Your task to perform on an android device: find photos in the google photos app Image 0: 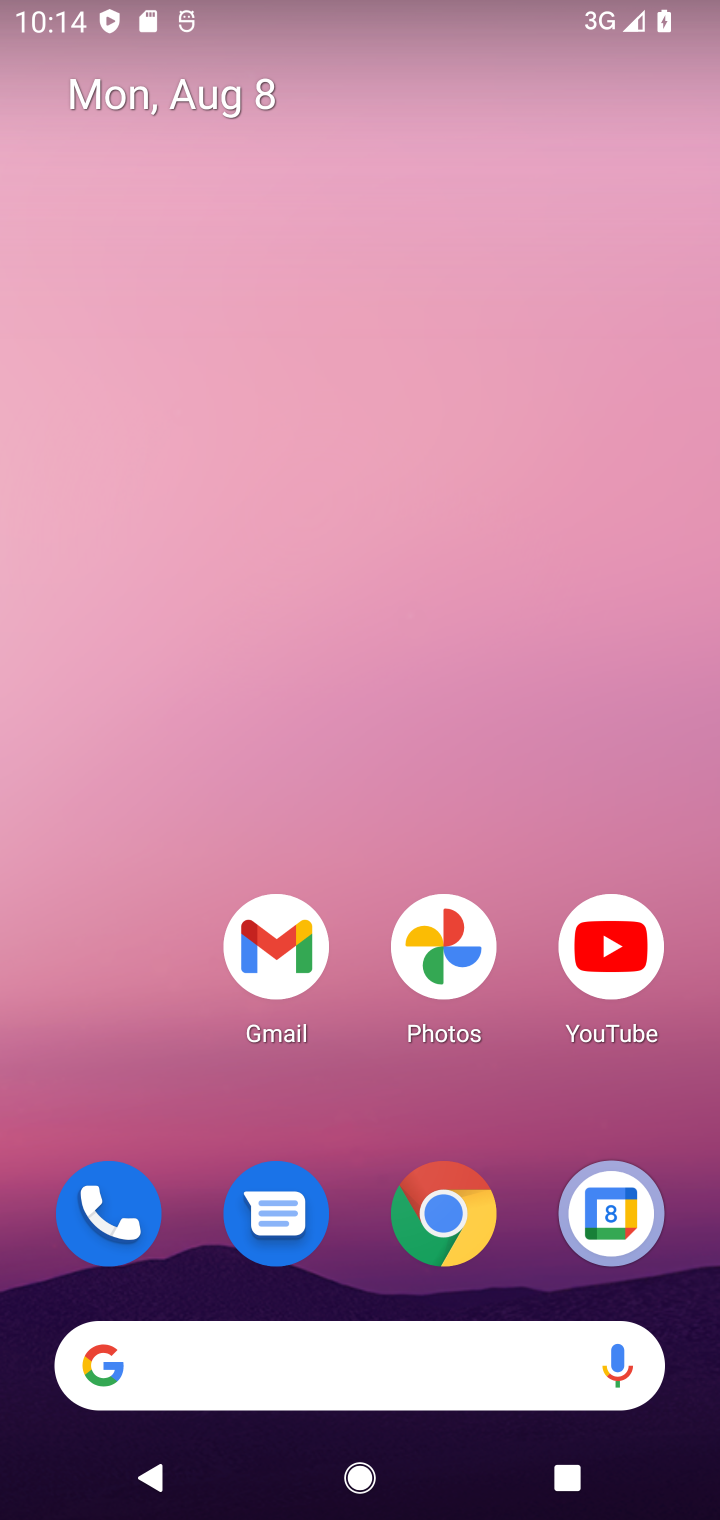
Step 0: drag from (131, 856) to (255, 436)
Your task to perform on an android device: find photos in the google photos app Image 1: 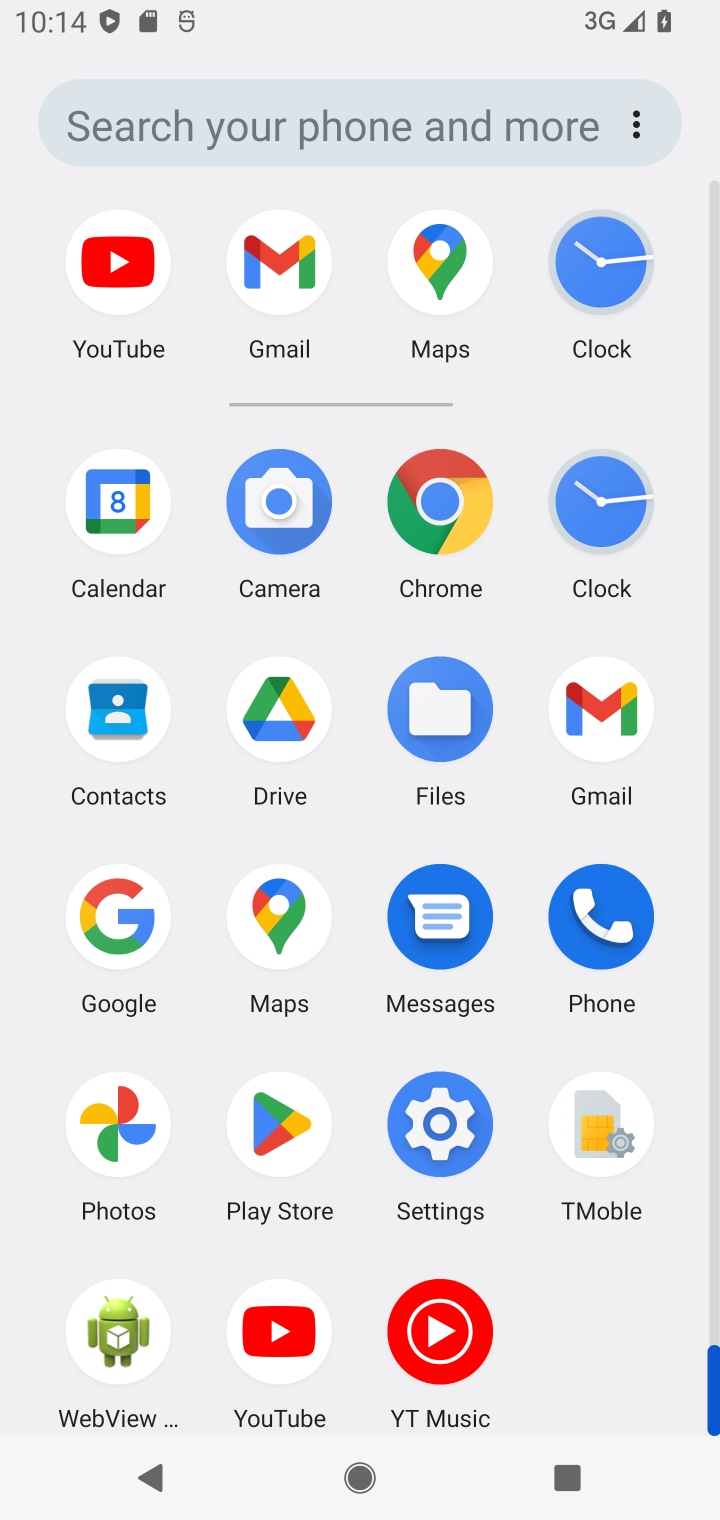
Step 1: click (130, 1149)
Your task to perform on an android device: find photos in the google photos app Image 2: 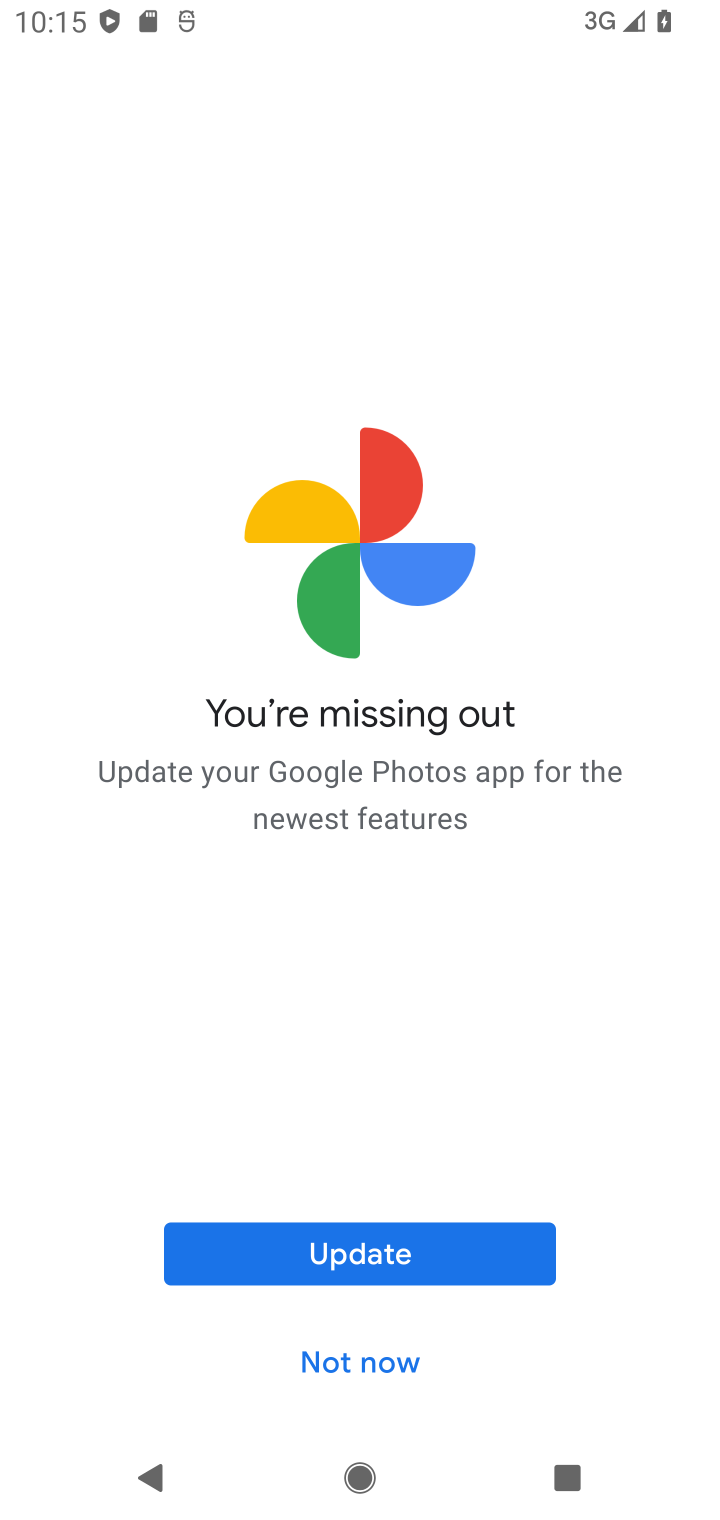
Step 2: click (426, 1351)
Your task to perform on an android device: find photos in the google photos app Image 3: 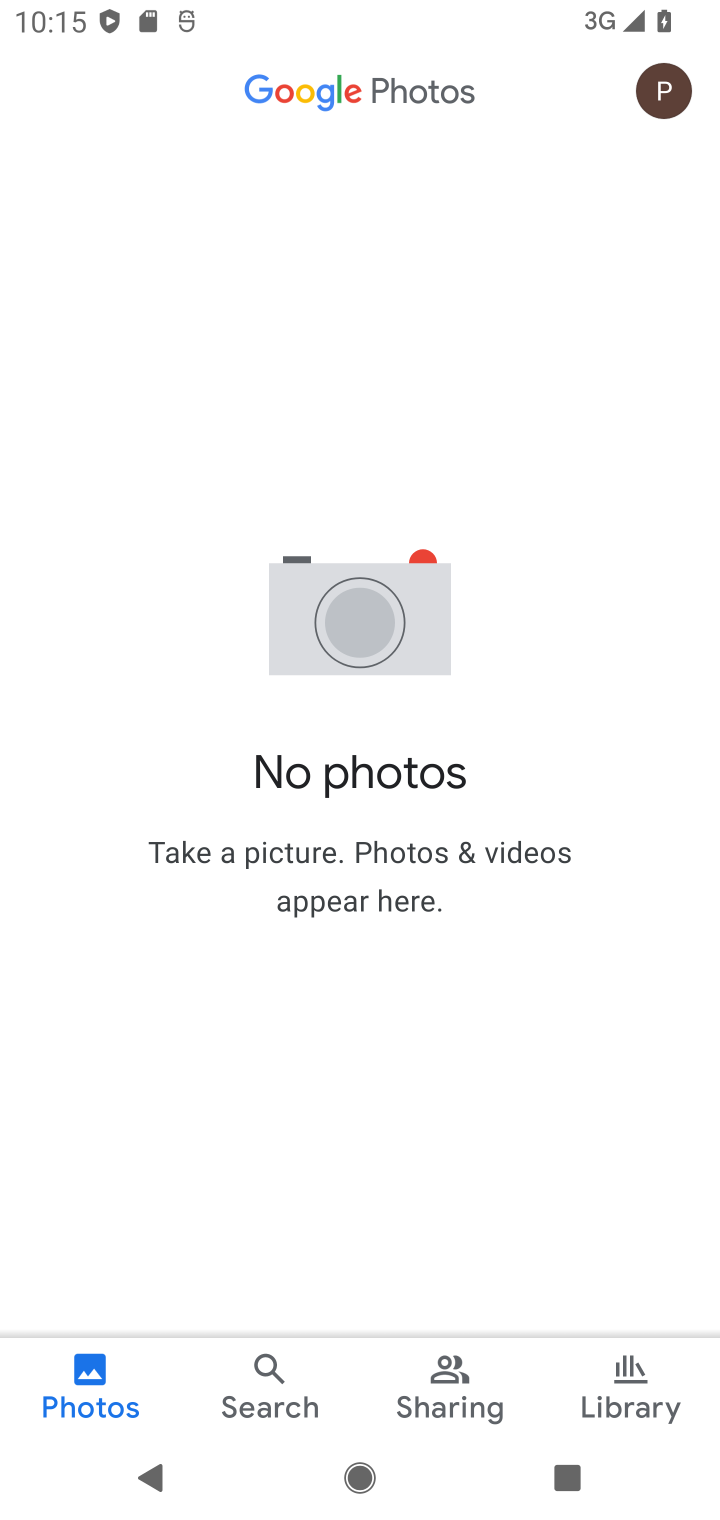
Step 3: task complete